Your task to perform on an android device: turn smart compose on in the gmail app Image 0: 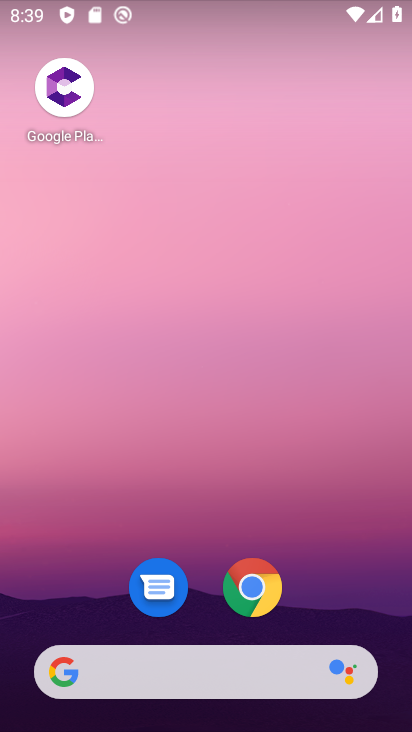
Step 0: drag from (365, 487) to (362, 72)
Your task to perform on an android device: turn smart compose on in the gmail app Image 1: 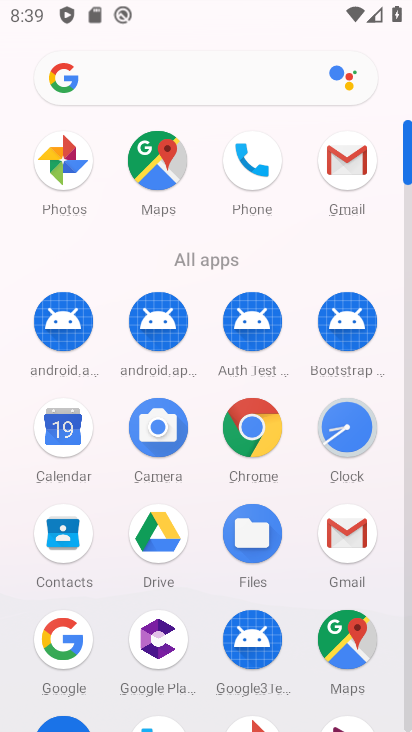
Step 1: click (342, 159)
Your task to perform on an android device: turn smart compose on in the gmail app Image 2: 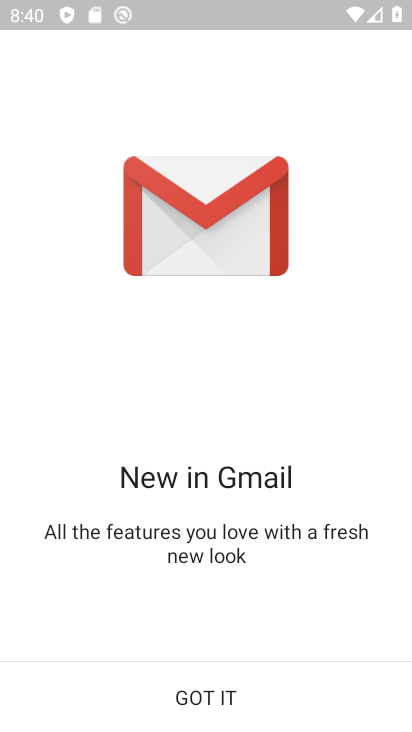
Step 2: click (190, 701)
Your task to perform on an android device: turn smart compose on in the gmail app Image 3: 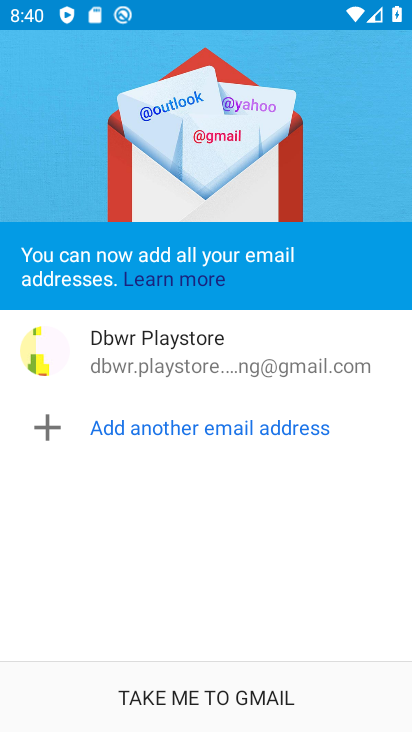
Step 3: click (190, 701)
Your task to perform on an android device: turn smart compose on in the gmail app Image 4: 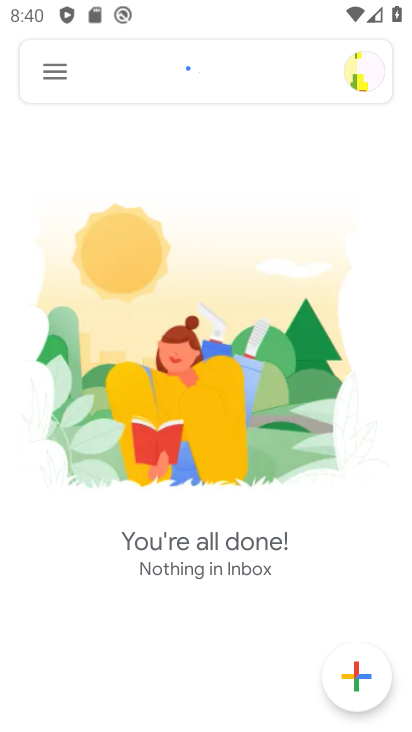
Step 4: click (59, 76)
Your task to perform on an android device: turn smart compose on in the gmail app Image 5: 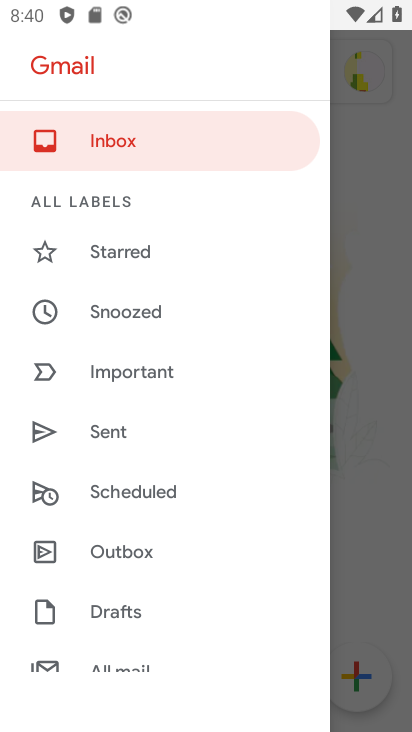
Step 5: drag from (295, 561) to (288, 206)
Your task to perform on an android device: turn smart compose on in the gmail app Image 6: 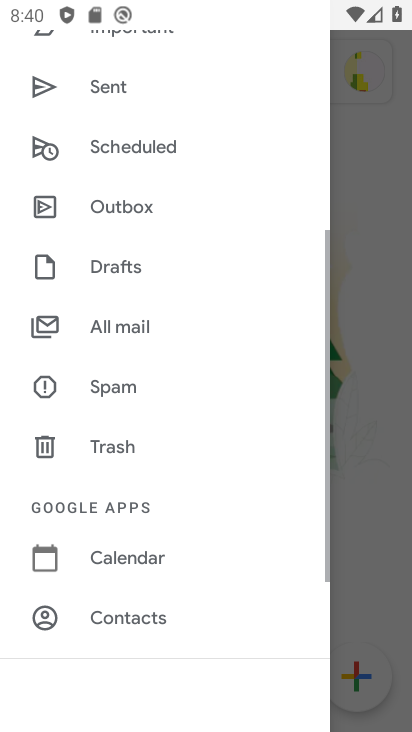
Step 6: drag from (236, 520) to (241, 192)
Your task to perform on an android device: turn smart compose on in the gmail app Image 7: 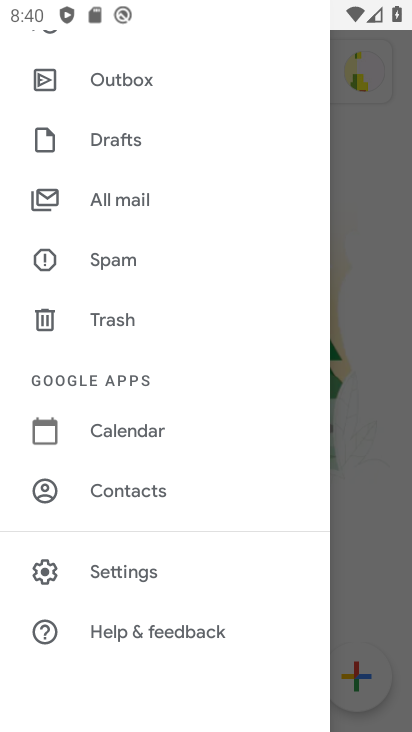
Step 7: click (125, 571)
Your task to perform on an android device: turn smart compose on in the gmail app Image 8: 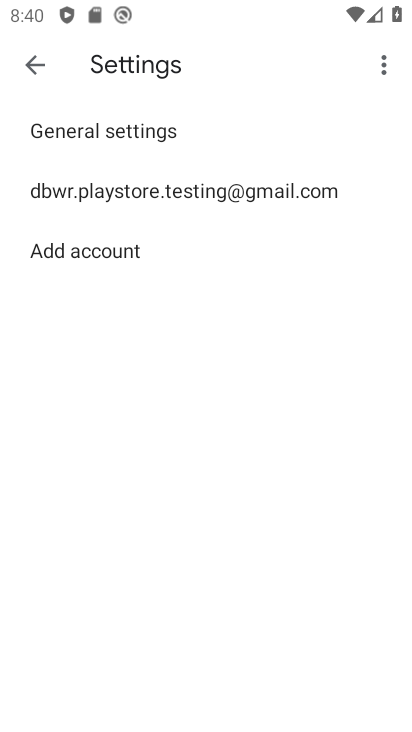
Step 8: click (77, 190)
Your task to perform on an android device: turn smart compose on in the gmail app Image 9: 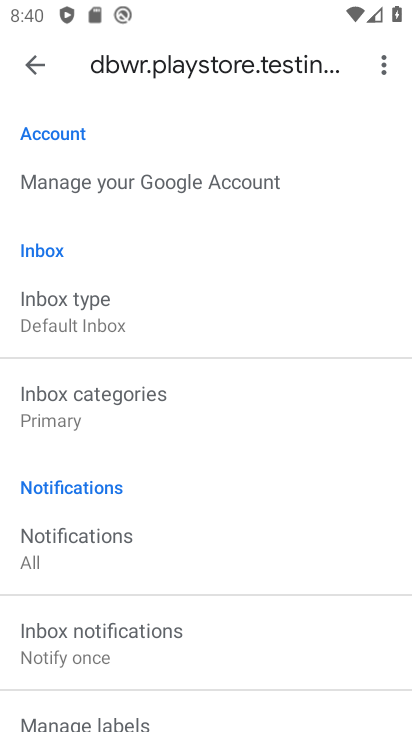
Step 9: task complete